Your task to perform on an android device: toggle show notifications on the lock screen Image 0: 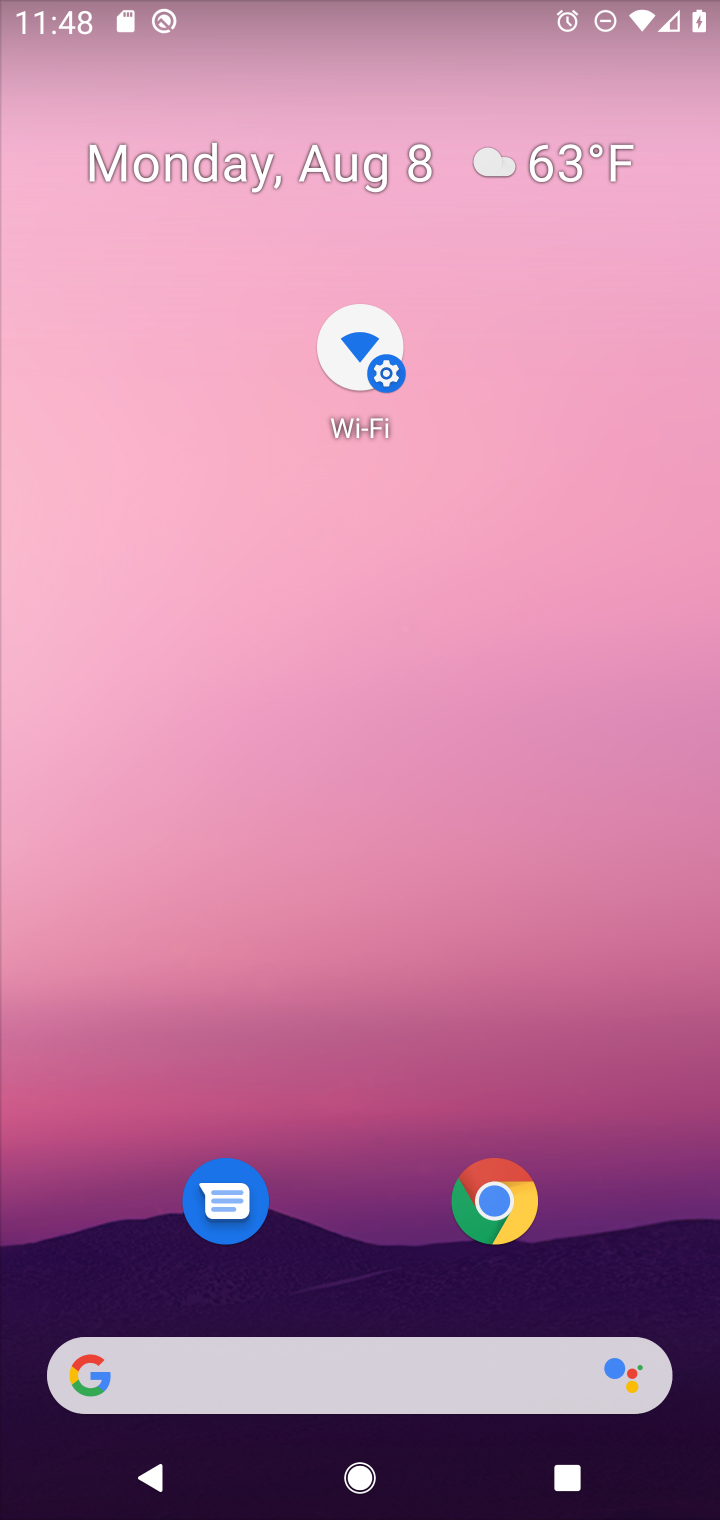
Step 0: drag from (587, 1125) to (637, 177)
Your task to perform on an android device: toggle show notifications on the lock screen Image 1: 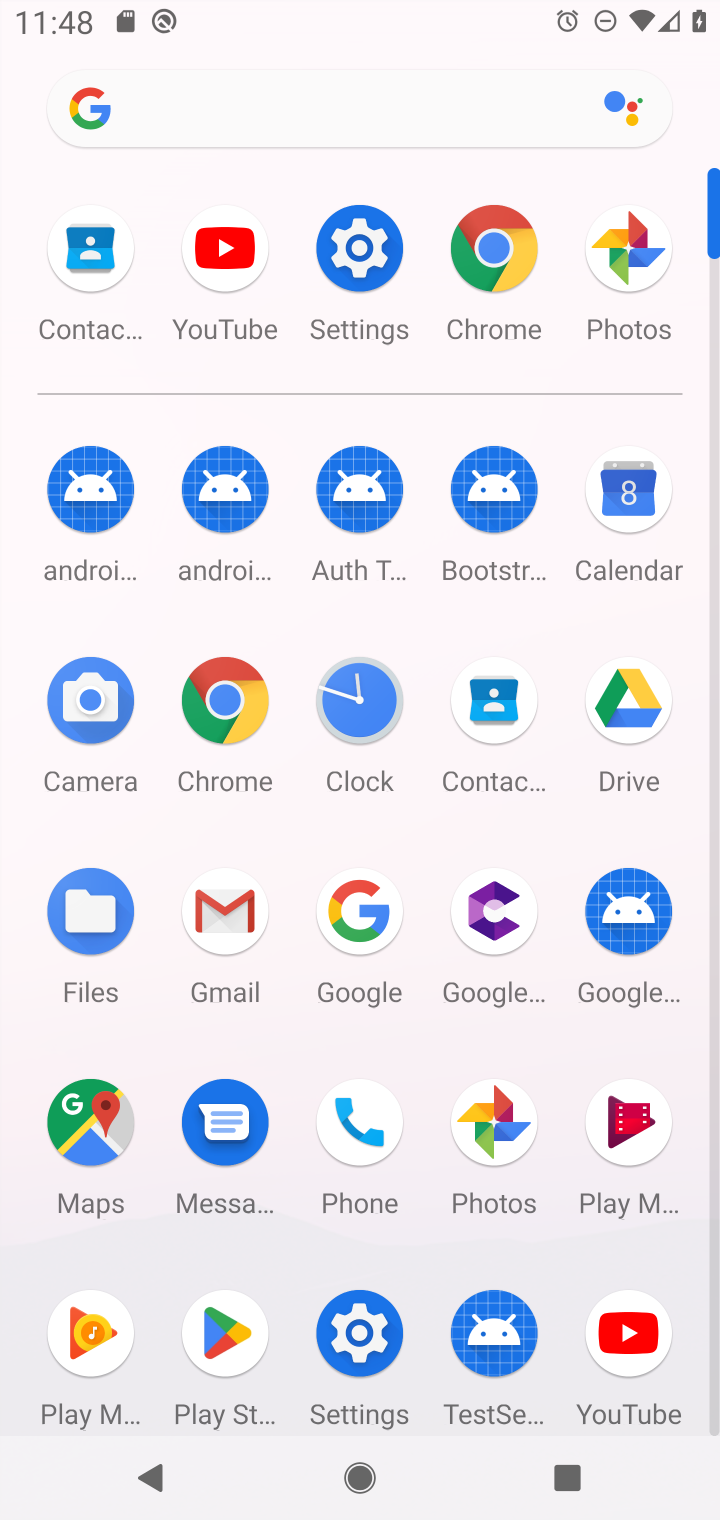
Step 1: click (353, 260)
Your task to perform on an android device: toggle show notifications on the lock screen Image 2: 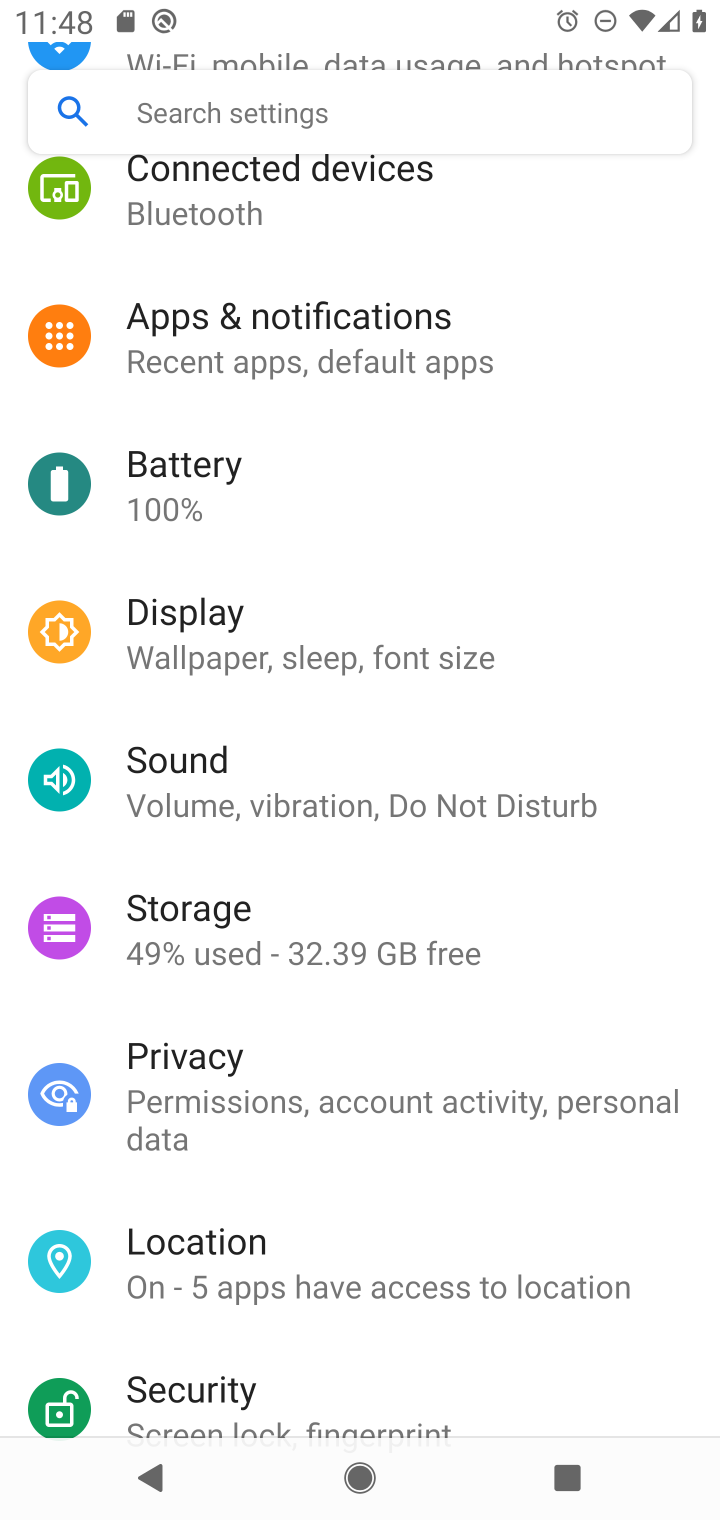
Step 2: drag from (606, 597) to (615, 830)
Your task to perform on an android device: toggle show notifications on the lock screen Image 3: 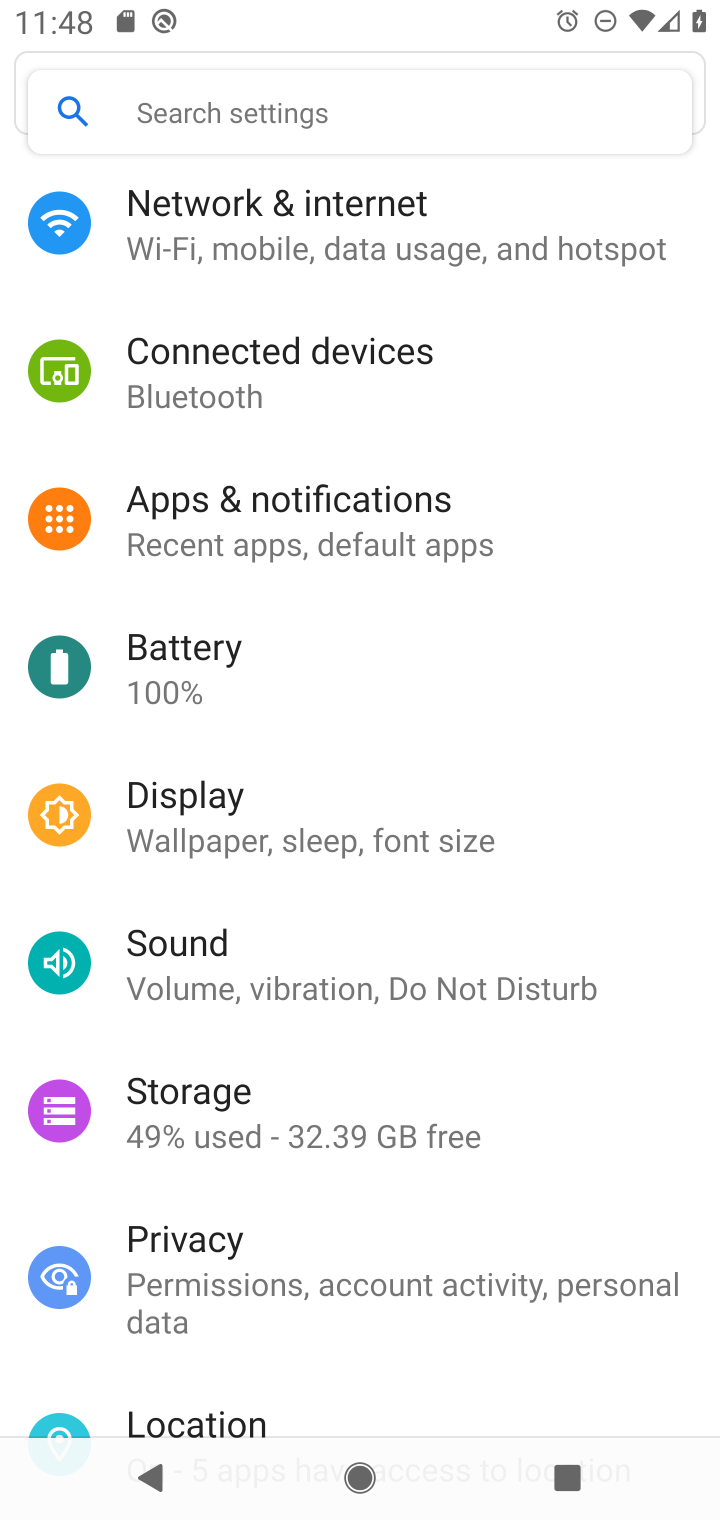
Step 3: click (383, 536)
Your task to perform on an android device: toggle show notifications on the lock screen Image 4: 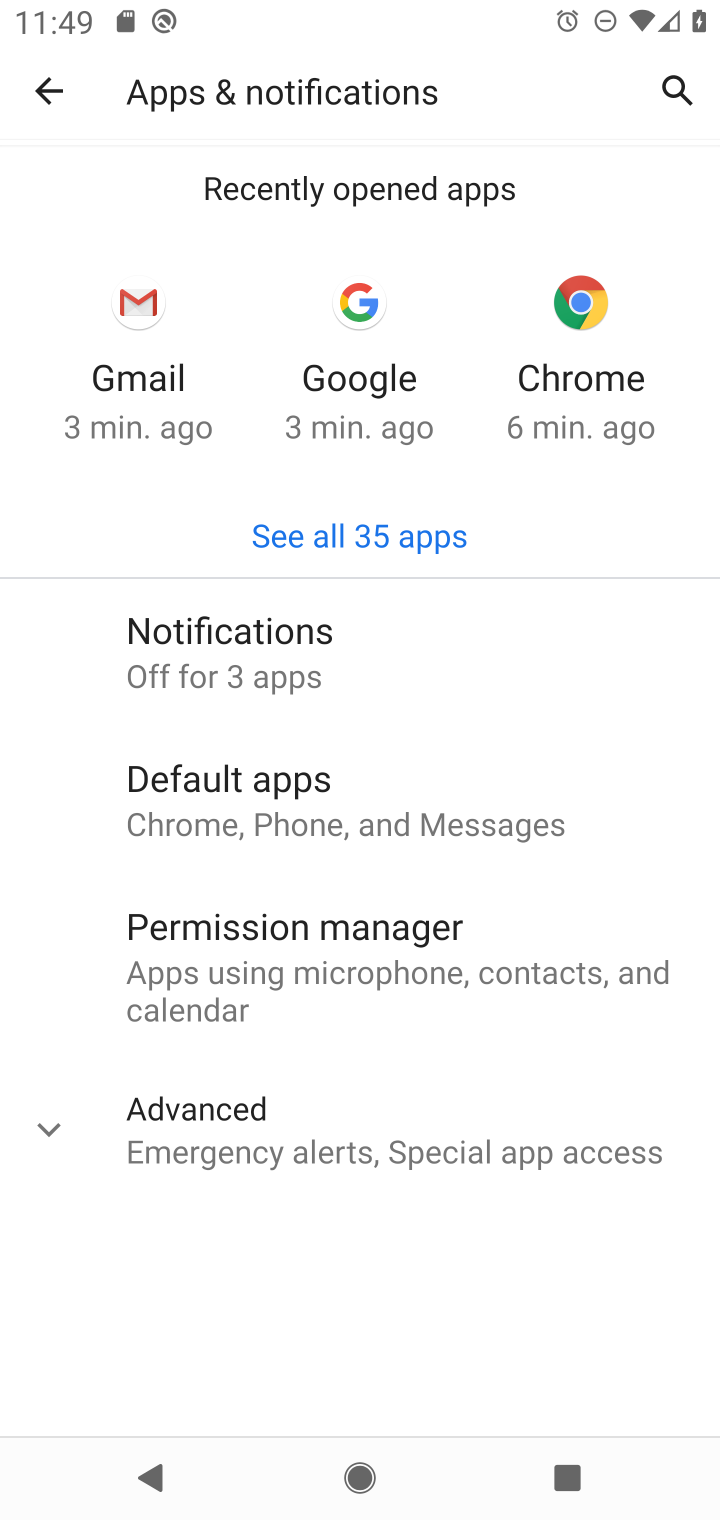
Step 4: click (337, 634)
Your task to perform on an android device: toggle show notifications on the lock screen Image 5: 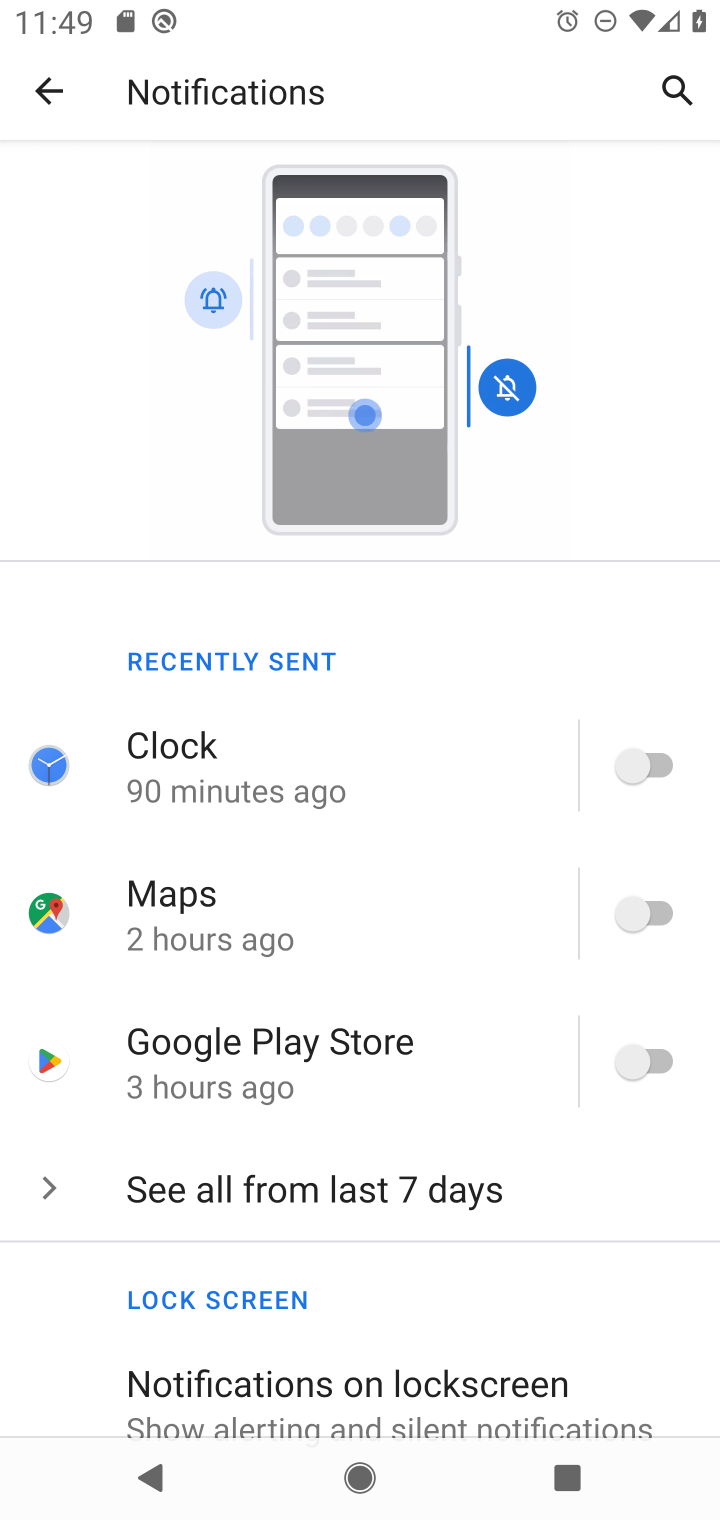
Step 5: drag from (428, 1049) to (440, 684)
Your task to perform on an android device: toggle show notifications on the lock screen Image 6: 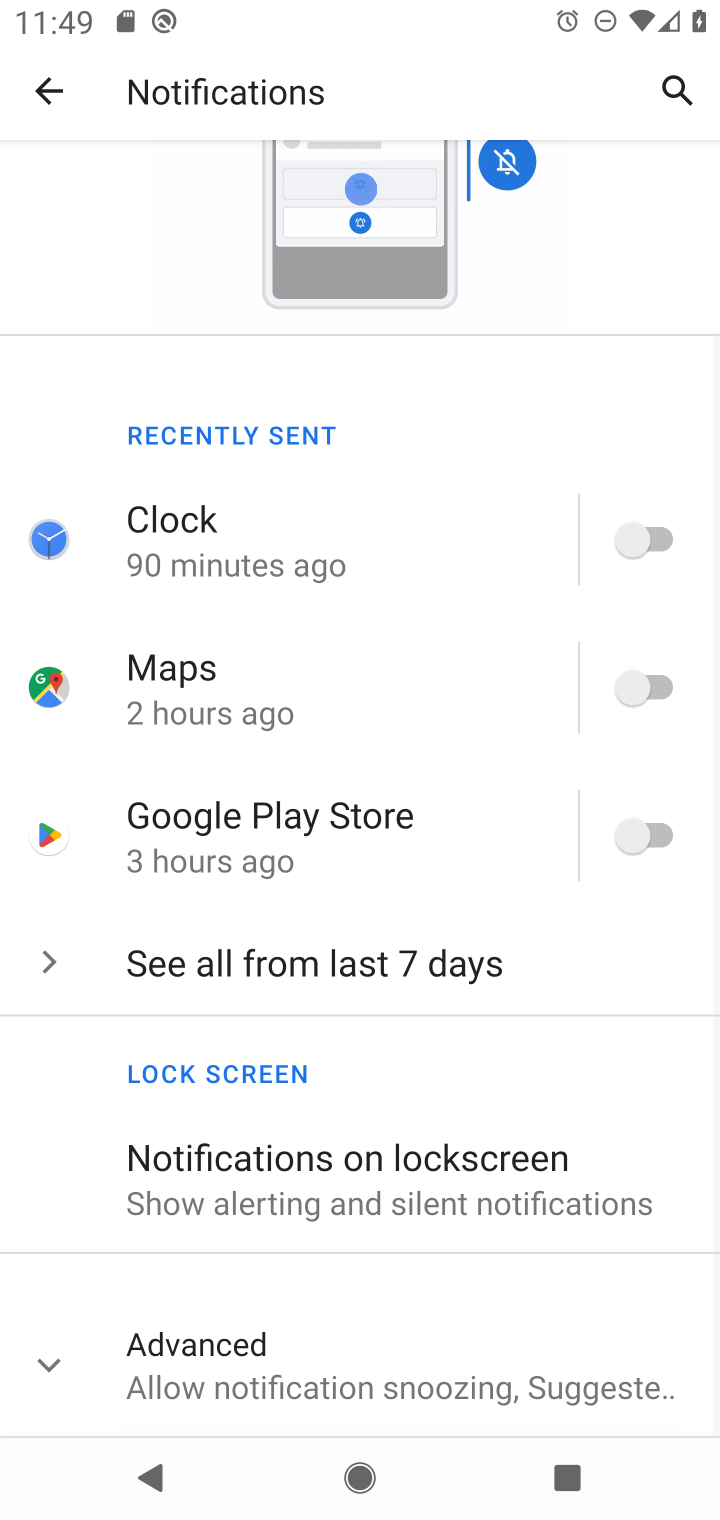
Step 6: click (407, 1156)
Your task to perform on an android device: toggle show notifications on the lock screen Image 7: 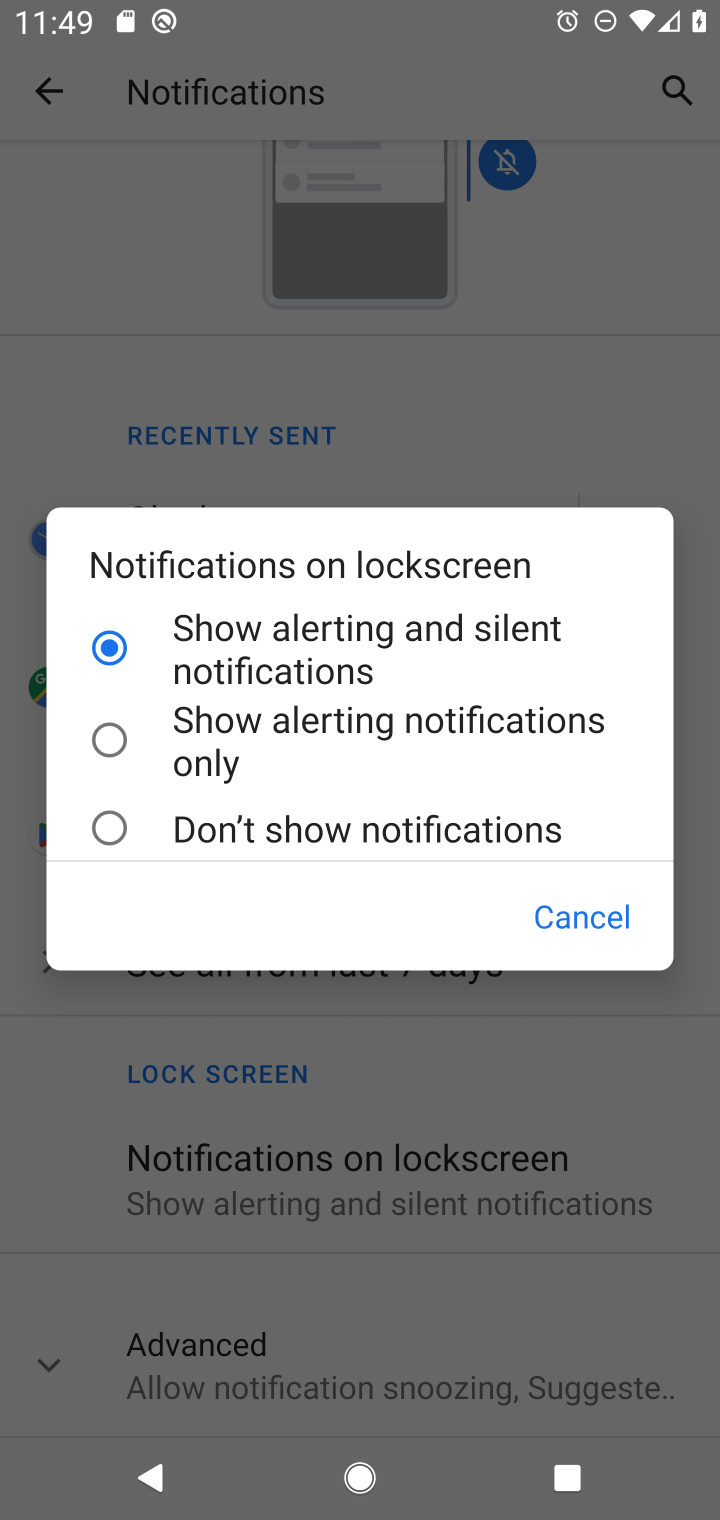
Step 7: click (316, 735)
Your task to perform on an android device: toggle show notifications on the lock screen Image 8: 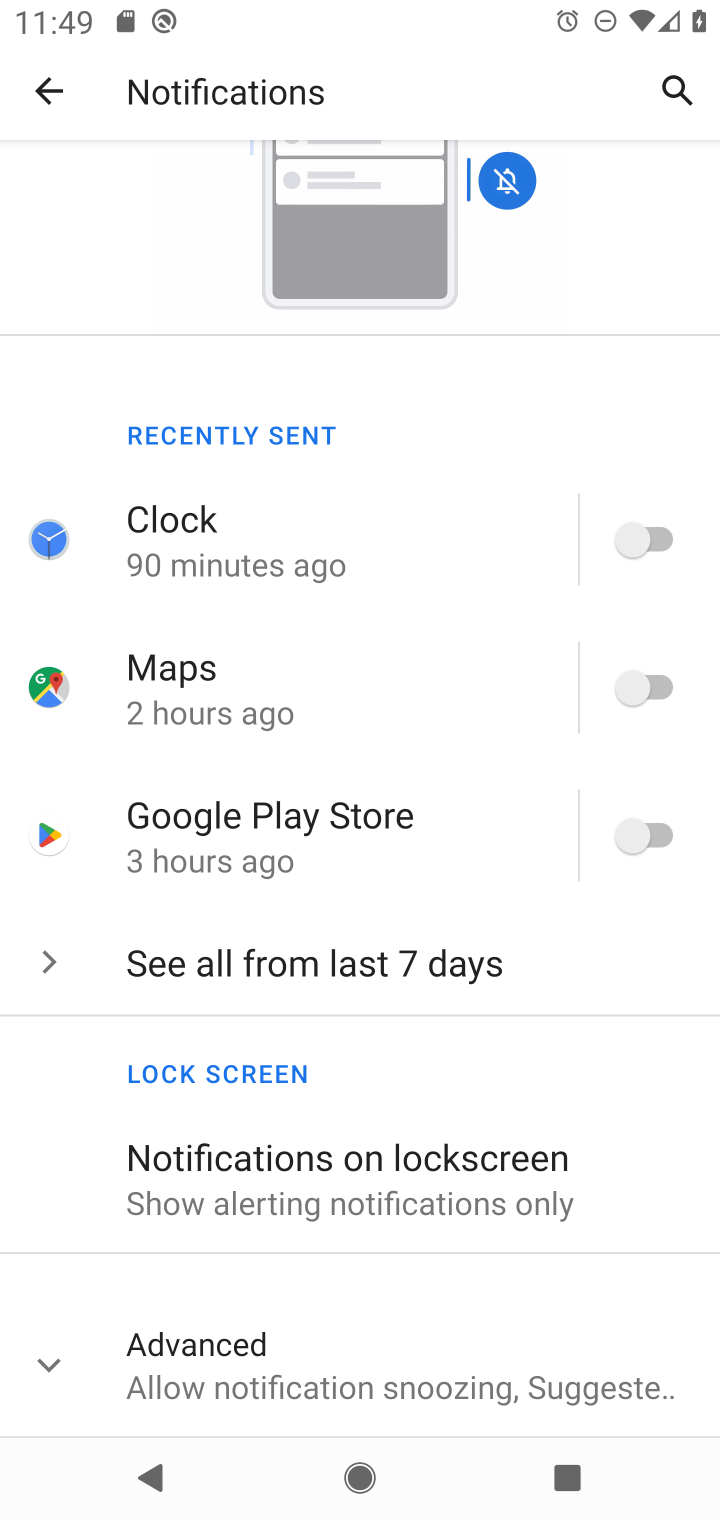
Step 8: task complete